Your task to perform on an android device: allow notifications from all sites in the chrome app Image 0: 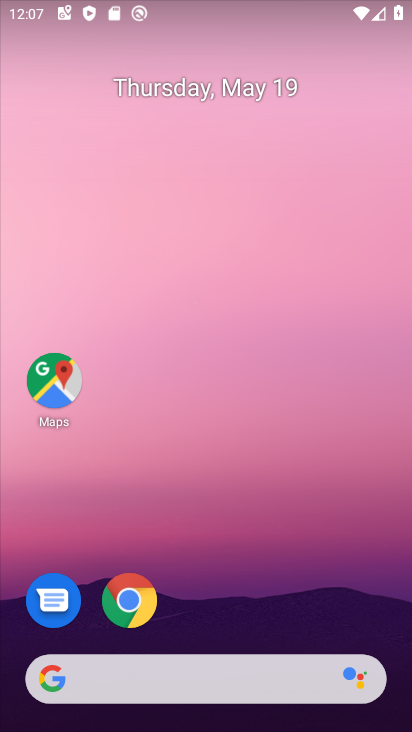
Step 0: click (132, 601)
Your task to perform on an android device: allow notifications from all sites in the chrome app Image 1: 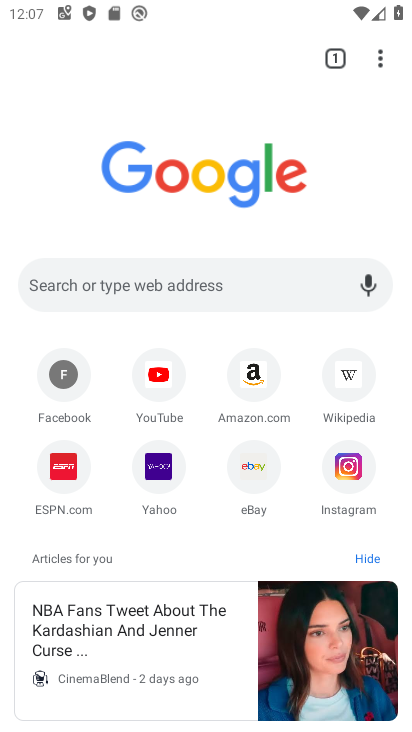
Step 1: click (367, 80)
Your task to perform on an android device: allow notifications from all sites in the chrome app Image 2: 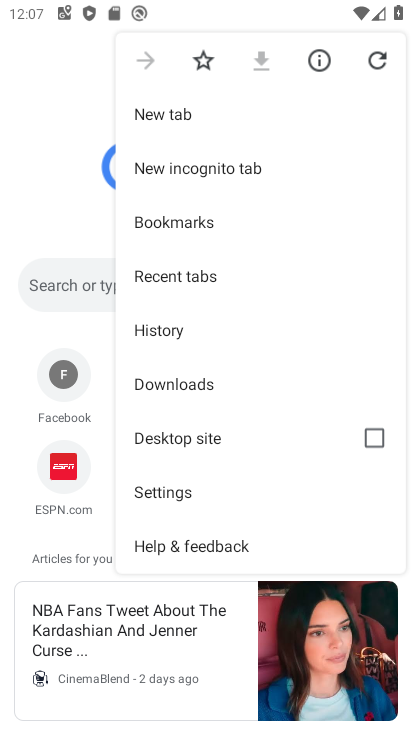
Step 2: click (221, 495)
Your task to perform on an android device: allow notifications from all sites in the chrome app Image 3: 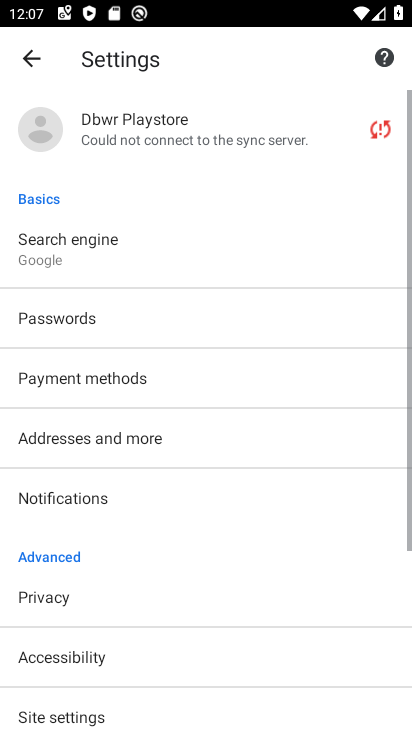
Step 3: drag from (187, 587) to (223, 124)
Your task to perform on an android device: allow notifications from all sites in the chrome app Image 4: 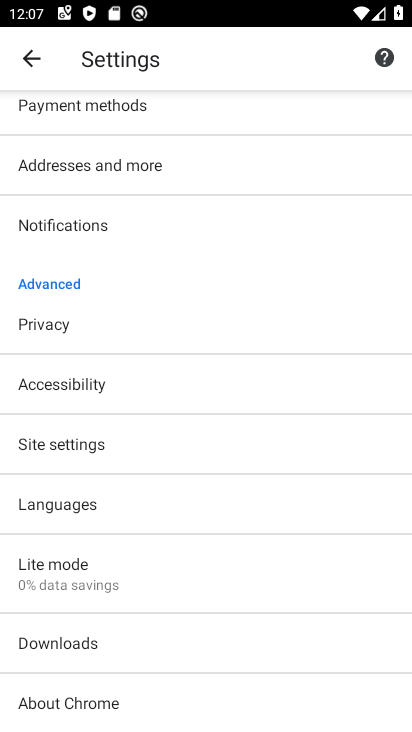
Step 4: click (113, 447)
Your task to perform on an android device: allow notifications from all sites in the chrome app Image 5: 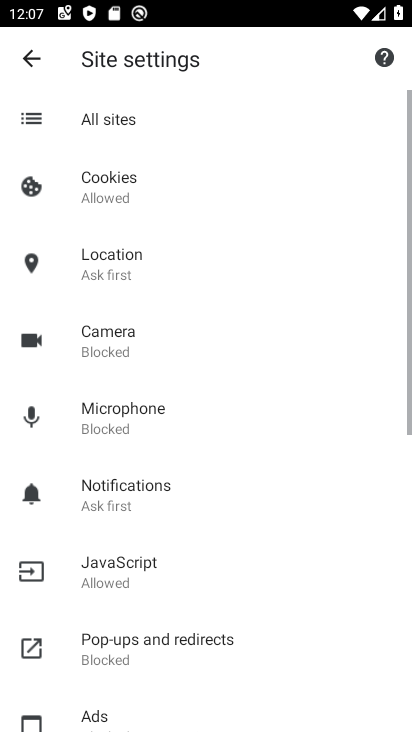
Step 5: click (156, 508)
Your task to perform on an android device: allow notifications from all sites in the chrome app Image 6: 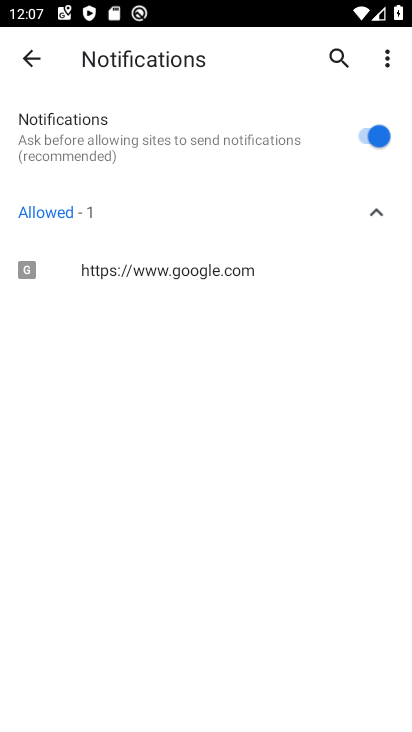
Step 6: task complete